Your task to perform on an android device: Search for vegetarian restaurants on Maps Image 0: 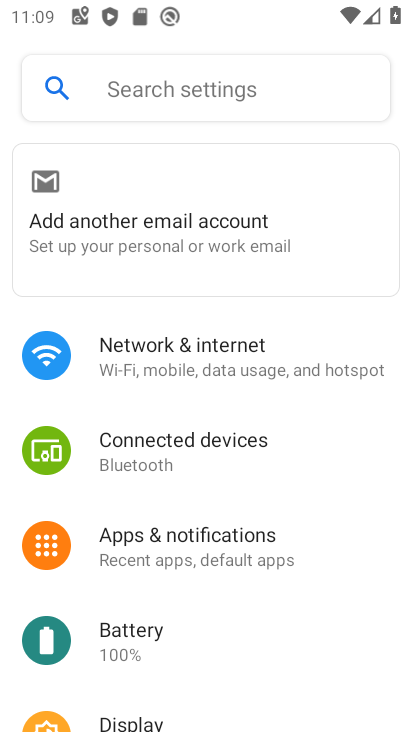
Step 0: press home button
Your task to perform on an android device: Search for vegetarian restaurants on Maps Image 1: 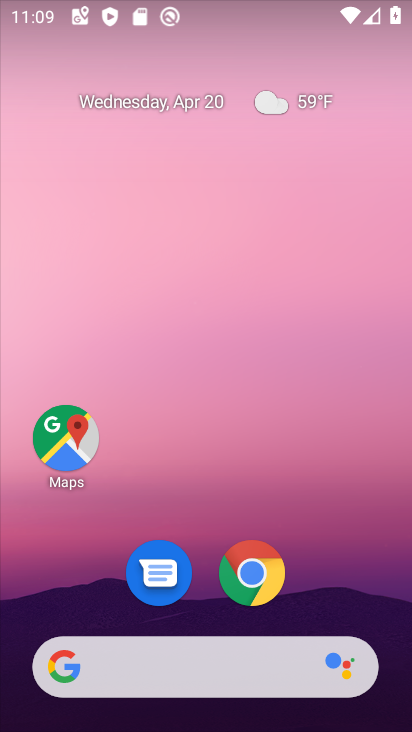
Step 1: click (62, 437)
Your task to perform on an android device: Search for vegetarian restaurants on Maps Image 2: 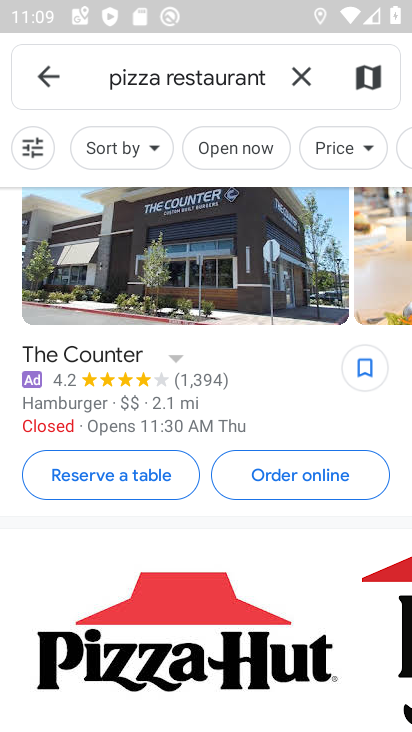
Step 2: click (288, 80)
Your task to perform on an android device: Search for vegetarian restaurants on Maps Image 3: 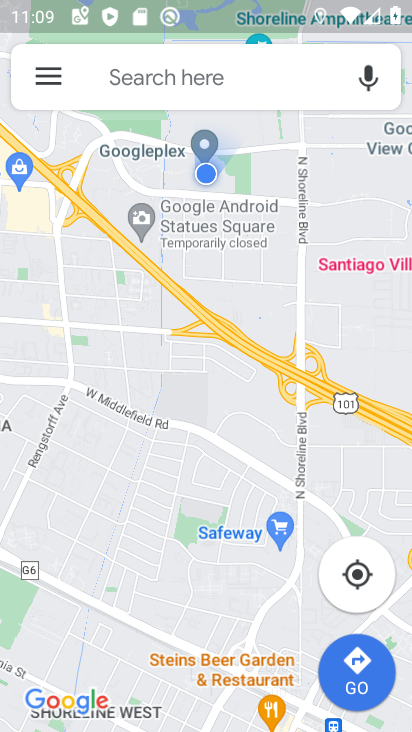
Step 3: click (121, 78)
Your task to perform on an android device: Search for vegetarian restaurants on Maps Image 4: 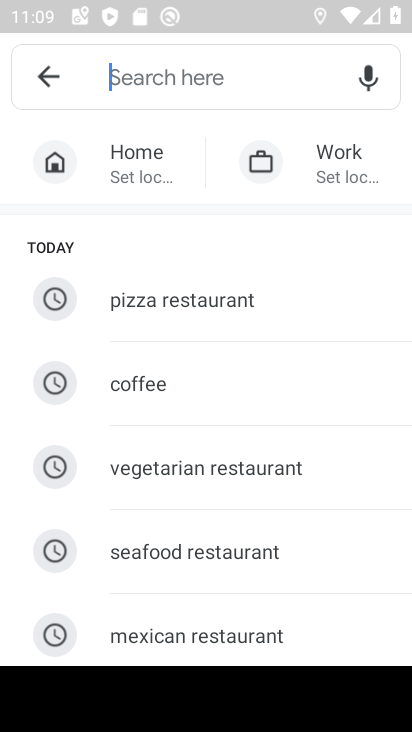
Step 4: type "vegetarian restaurant"
Your task to perform on an android device: Search for vegetarian restaurants on Maps Image 5: 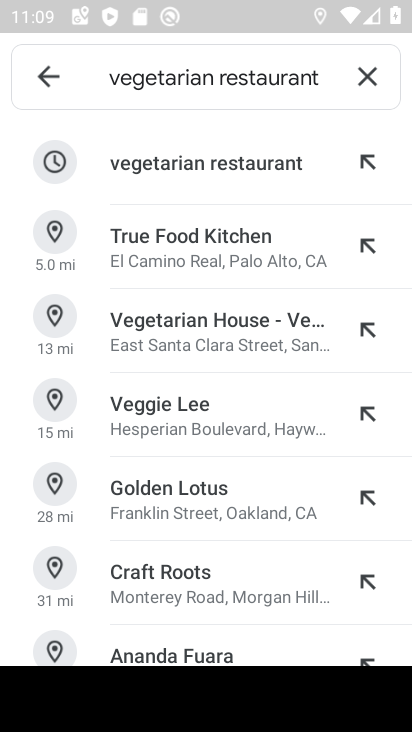
Step 5: click (219, 165)
Your task to perform on an android device: Search for vegetarian restaurants on Maps Image 6: 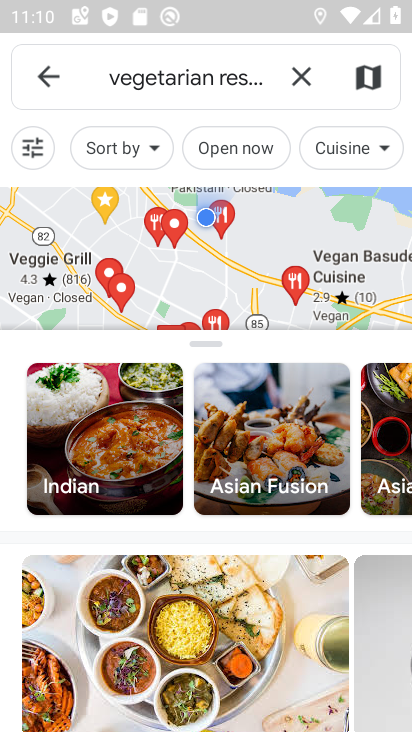
Step 6: task complete